Your task to perform on an android device: Go to Yahoo.com Image 0: 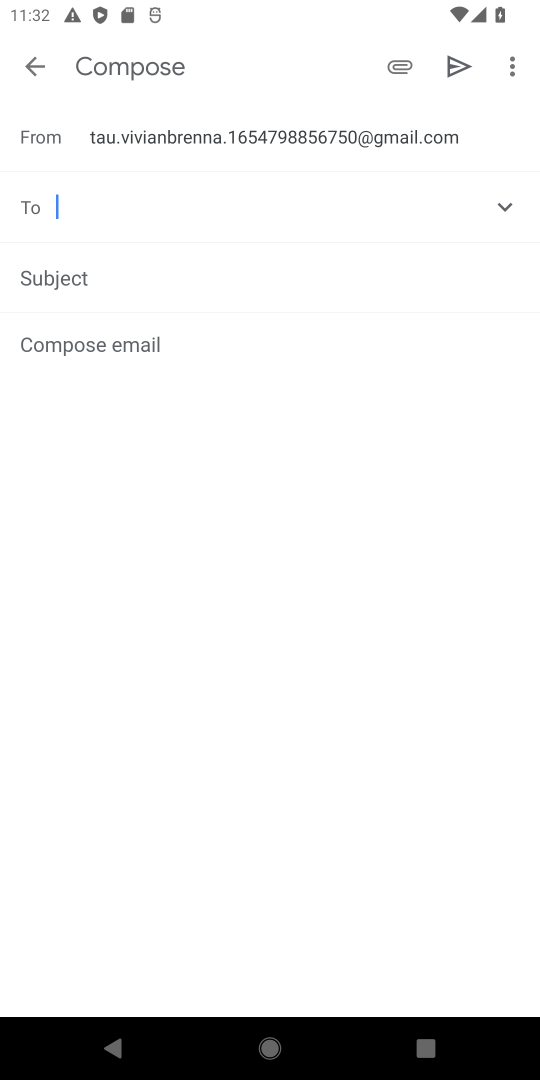
Step 0: press home button
Your task to perform on an android device: Go to Yahoo.com Image 1: 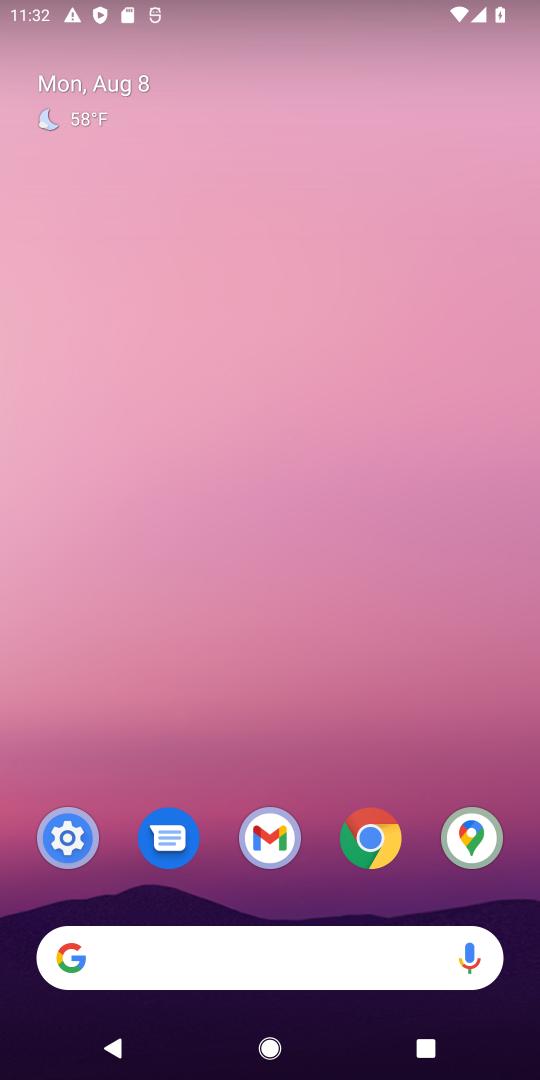
Step 1: press home button
Your task to perform on an android device: Go to Yahoo.com Image 2: 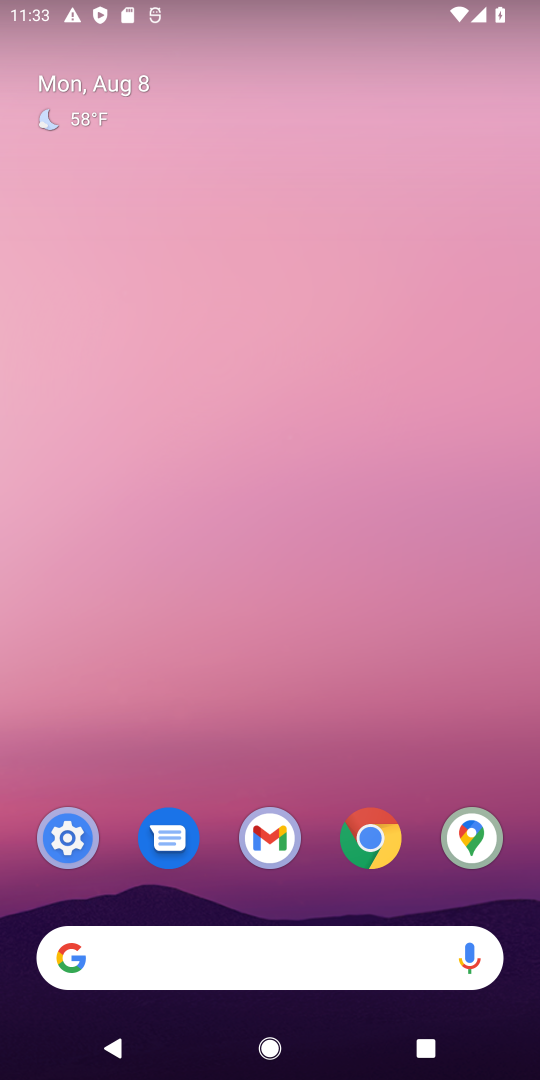
Step 2: click (67, 962)
Your task to perform on an android device: Go to Yahoo.com Image 3: 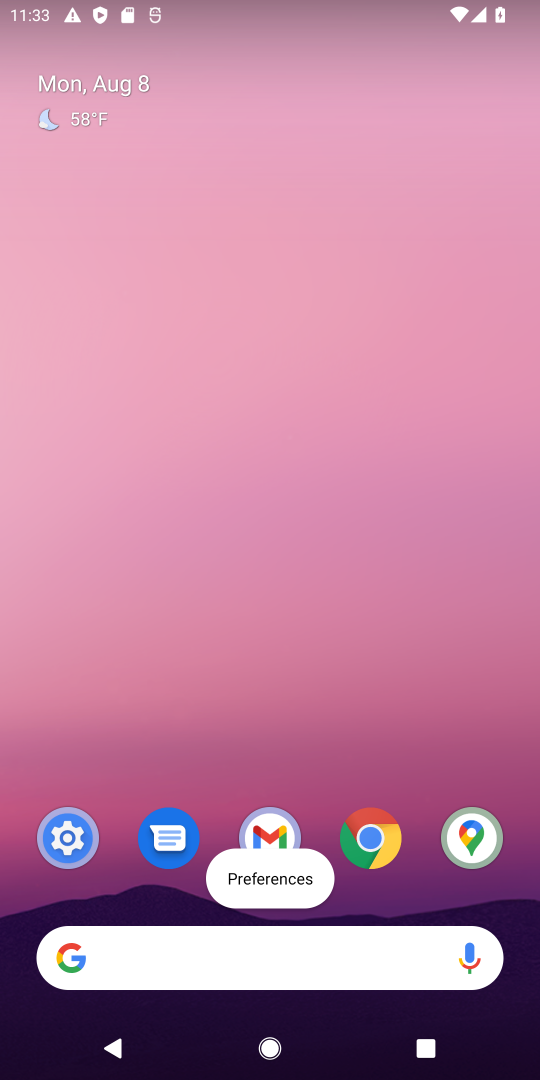
Step 3: click (61, 966)
Your task to perform on an android device: Go to Yahoo.com Image 4: 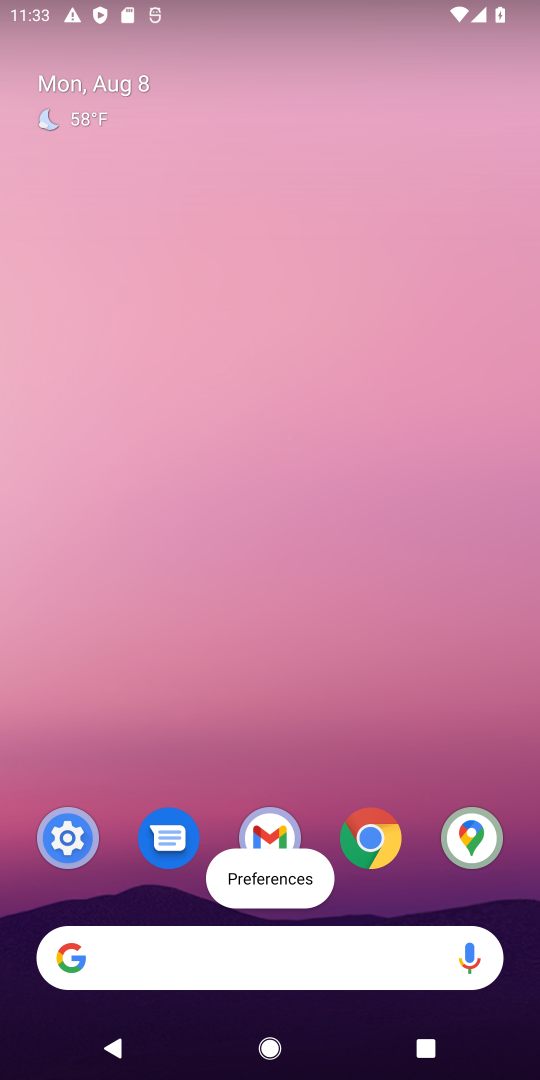
Step 4: click (69, 965)
Your task to perform on an android device: Go to Yahoo.com Image 5: 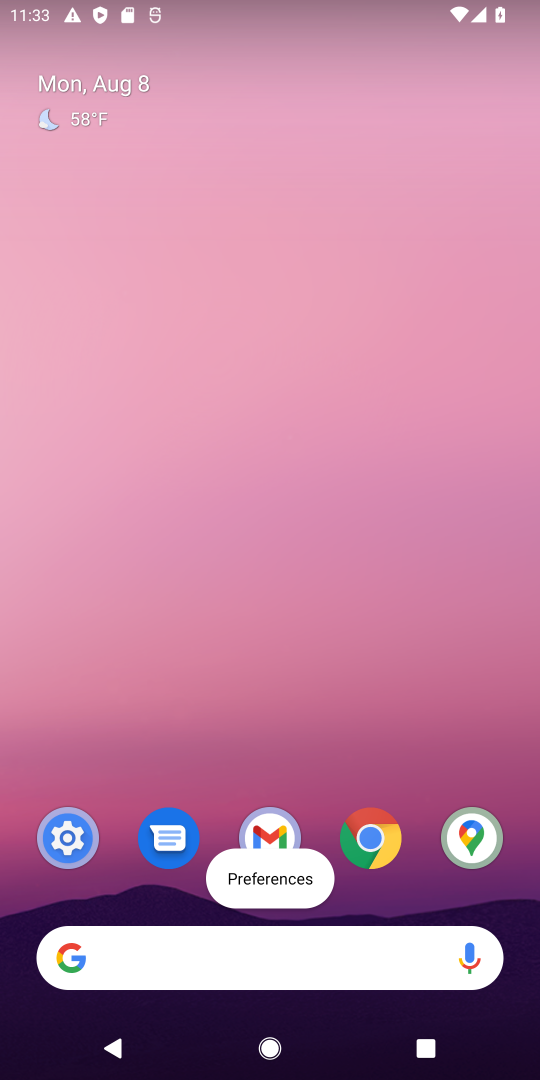
Step 5: click (63, 956)
Your task to perform on an android device: Go to Yahoo.com Image 6: 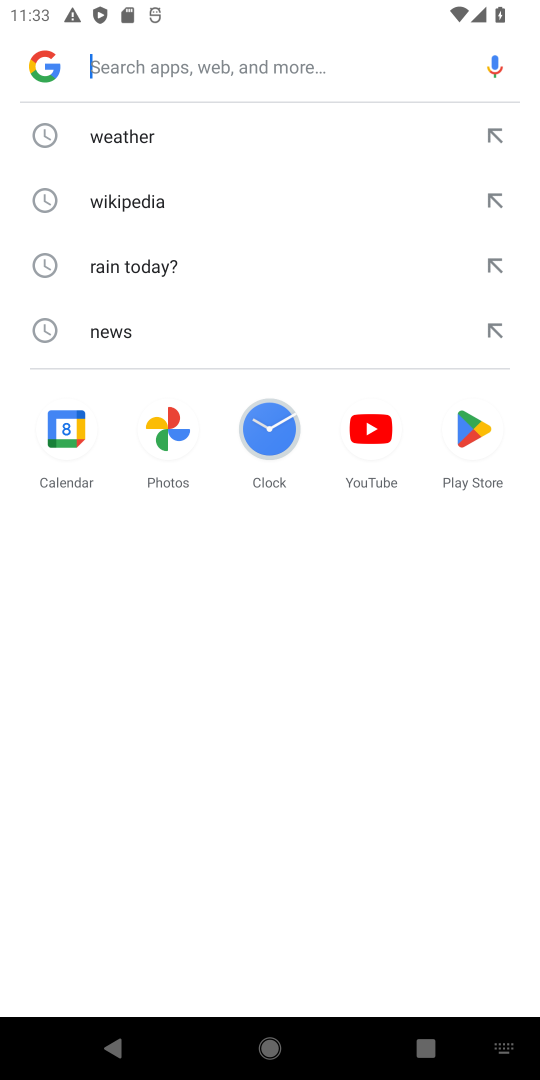
Step 6: type "Yahoo.com"
Your task to perform on an android device: Go to Yahoo.com Image 7: 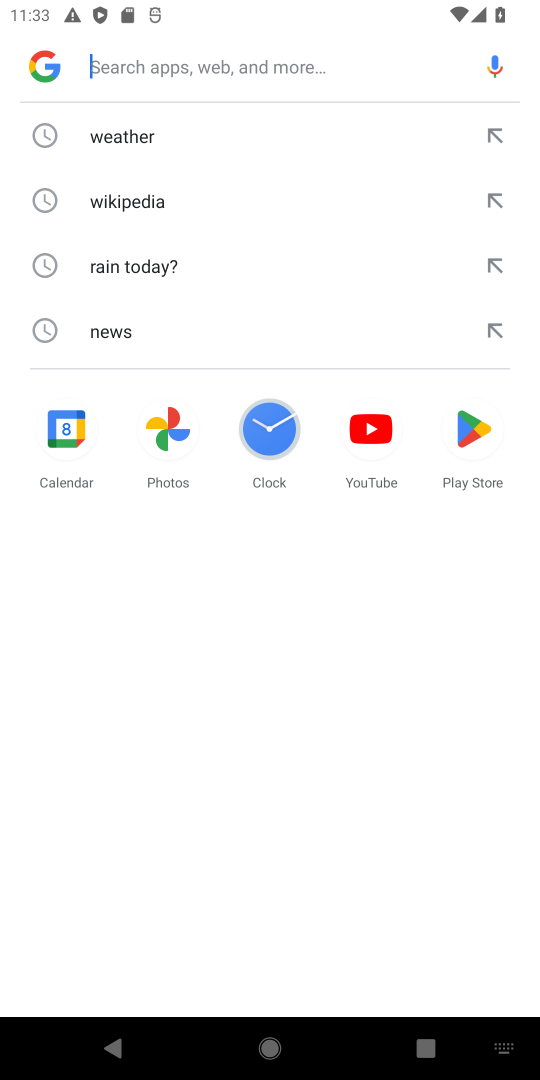
Step 7: click (146, 58)
Your task to perform on an android device: Go to Yahoo.com Image 8: 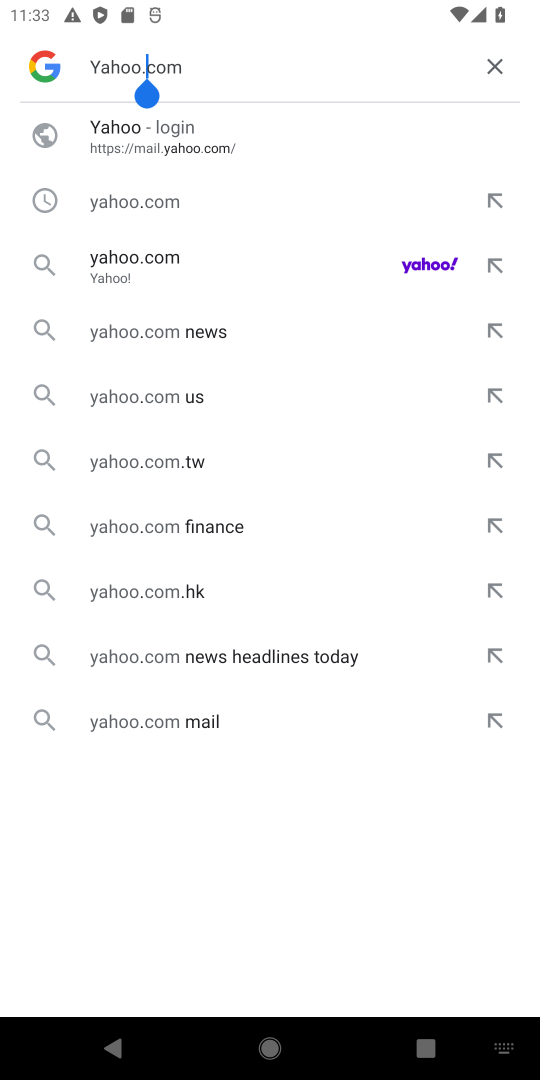
Step 8: click (427, 268)
Your task to perform on an android device: Go to Yahoo.com Image 9: 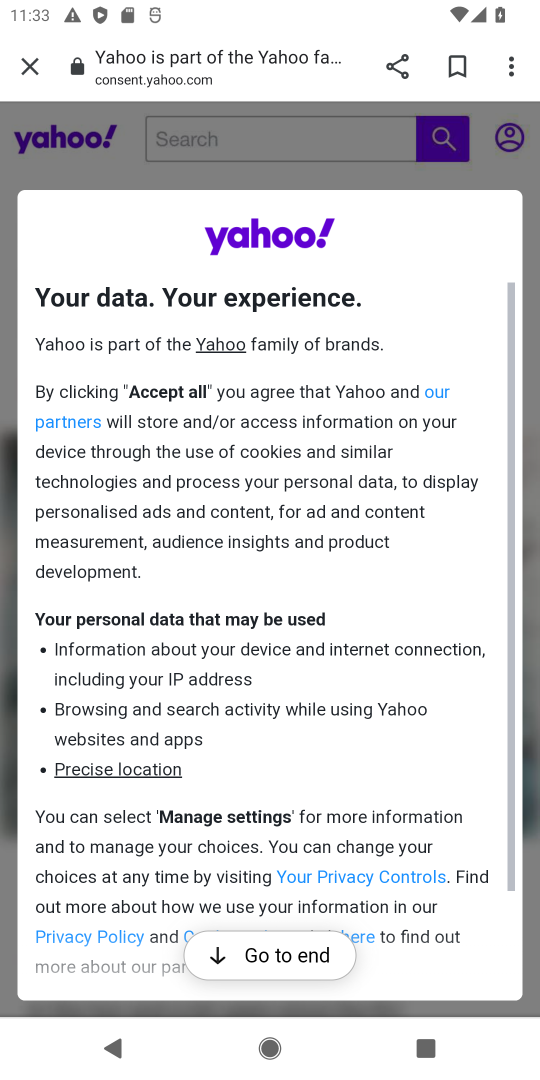
Step 9: drag from (366, 851) to (340, 292)
Your task to perform on an android device: Go to Yahoo.com Image 10: 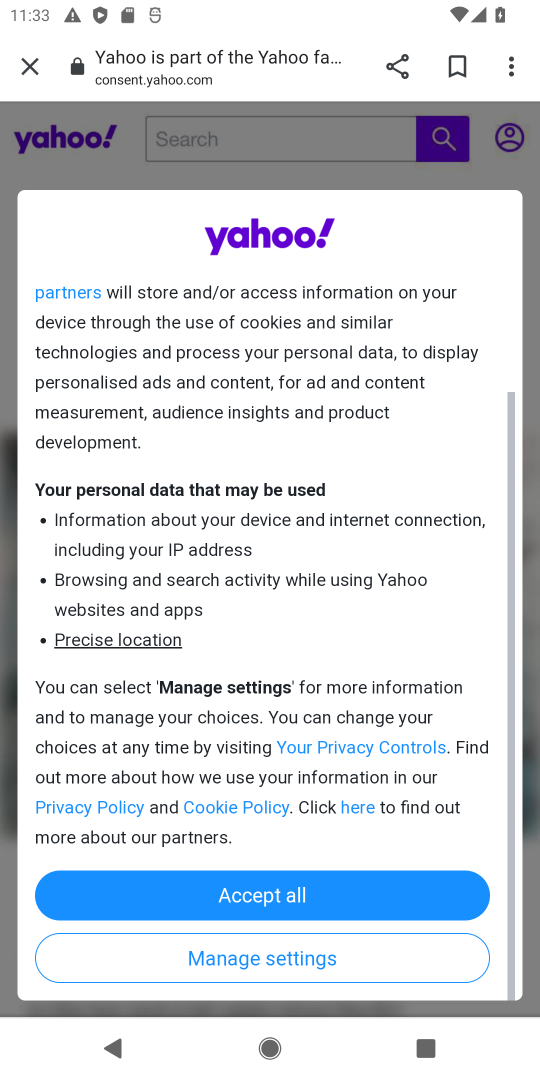
Step 10: click (280, 887)
Your task to perform on an android device: Go to Yahoo.com Image 11: 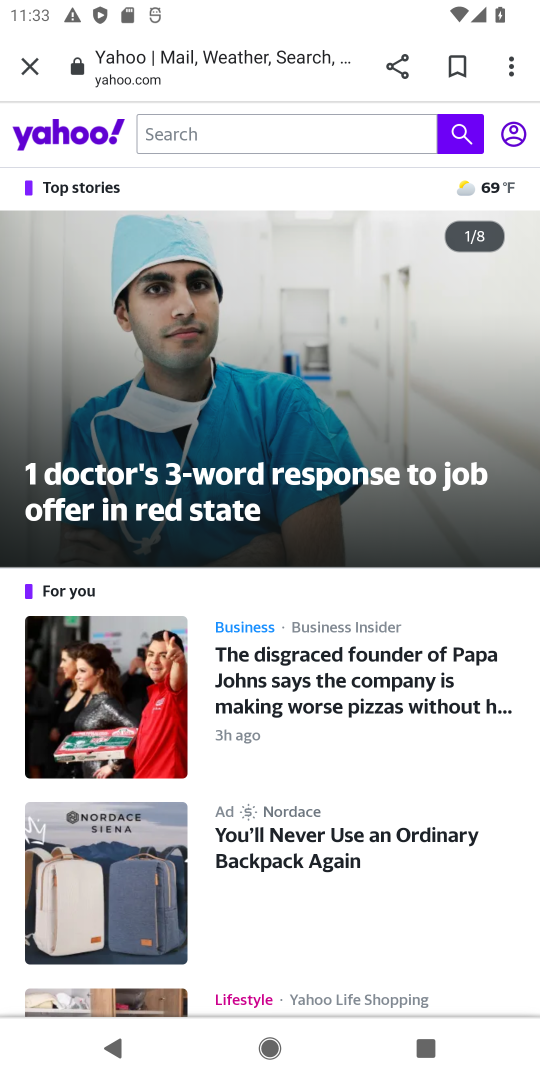
Step 11: task complete